Your task to perform on an android device: empty trash in google photos Image 0: 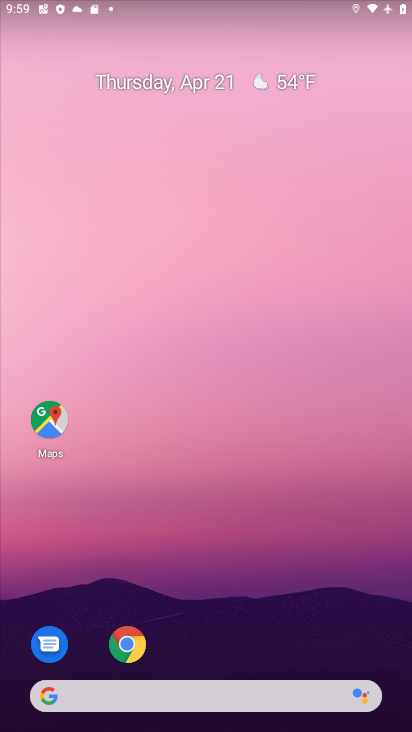
Step 0: drag from (199, 399) to (228, 54)
Your task to perform on an android device: empty trash in google photos Image 1: 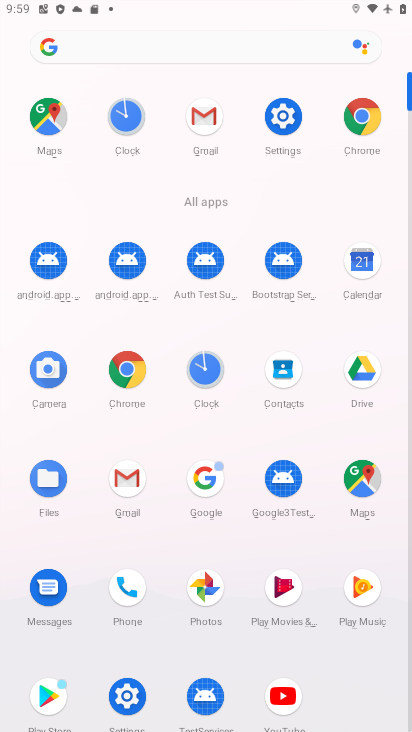
Step 1: click (204, 574)
Your task to perform on an android device: empty trash in google photos Image 2: 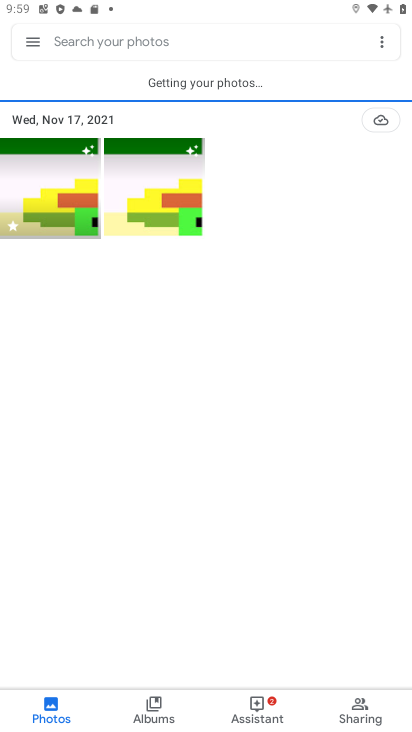
Step 2: click (31, 40)
Your task to perform on an android device: empty trash in google photos Image 3: 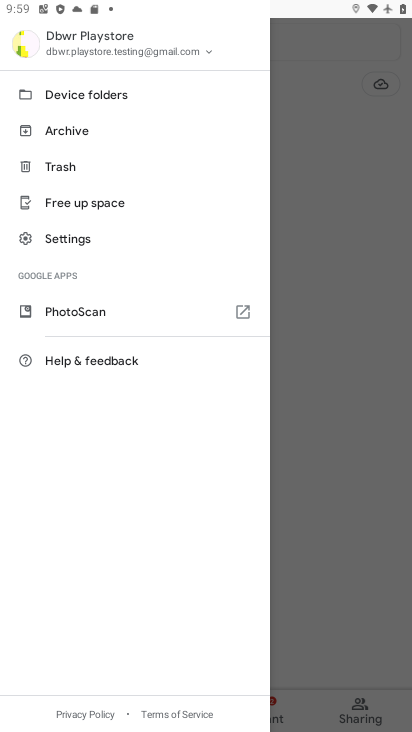
Step 3: click (42, 168)
Your task to perform on an android device: empty trash in google photos Image 4: 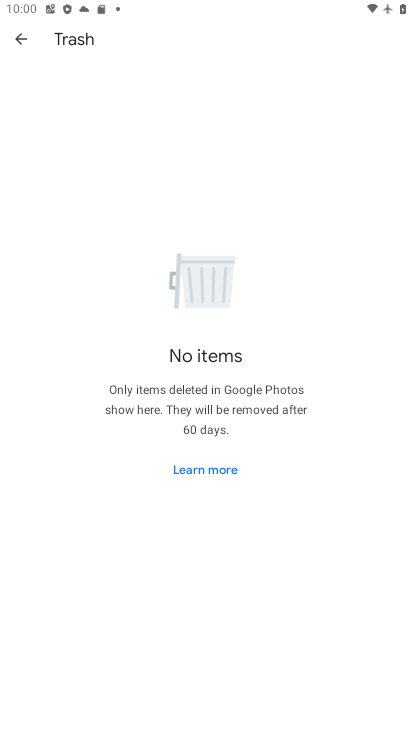
Step 4: task complete